Your task to perform on an android device: turn on airplane mode Image 0: 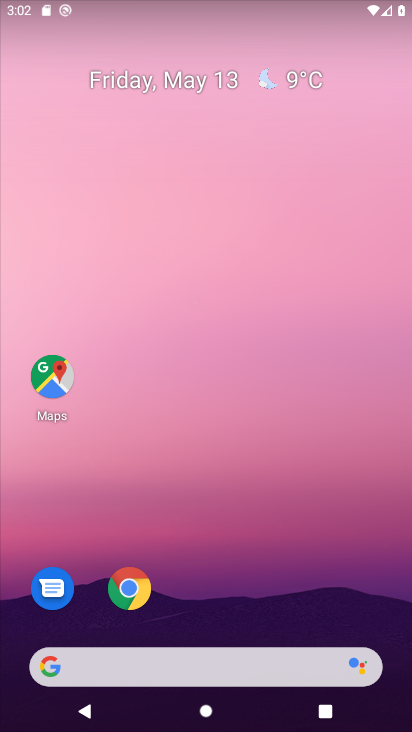
Step 0: drag from (387, 7) to (282, 475)
Your task to perform on an android device: turn on airplane mode Image 1: 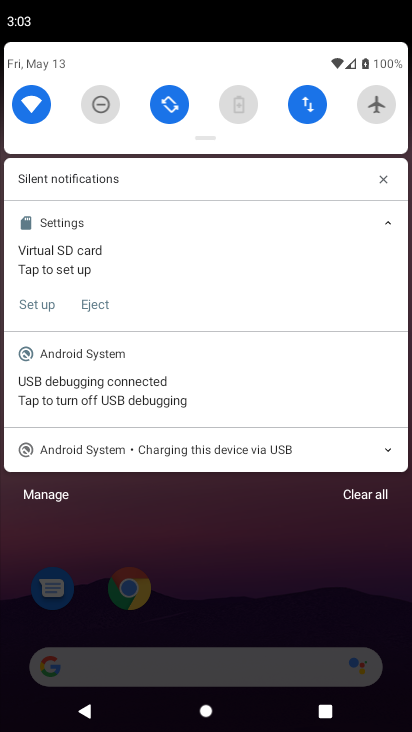
Step 1: click (376, 117)
Your task to perform on an android device: turn on airplane mode Image 2: 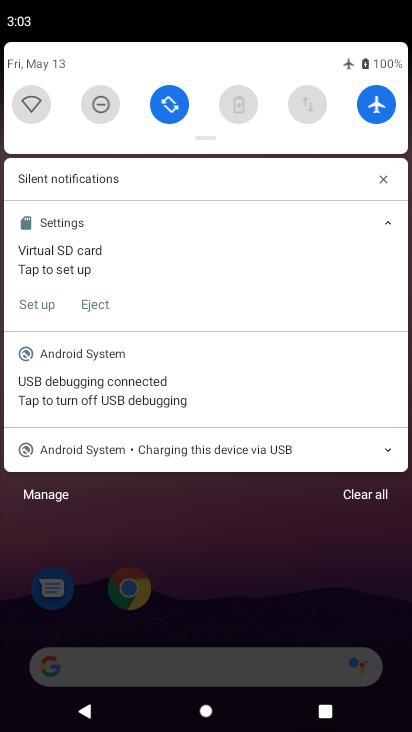
Step 2: task complete